Your task to perform on an android device: allow cookies in the chrome app Image 0: 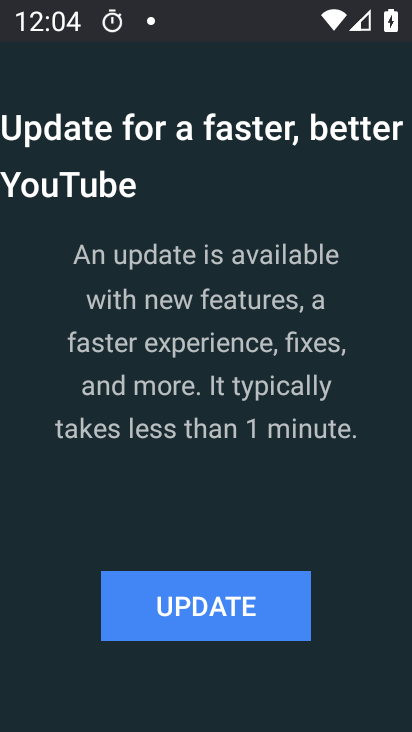
Step 0: press home button
Your task to perform on an android device: allow cookies in the chrome app Image 1: 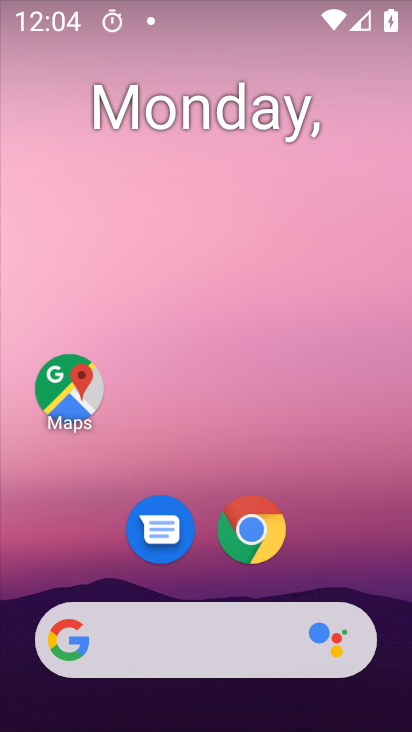
Step 1: click (258, 514)
Your task to perform on an android device: allow cookies in the chrome app Image 2: 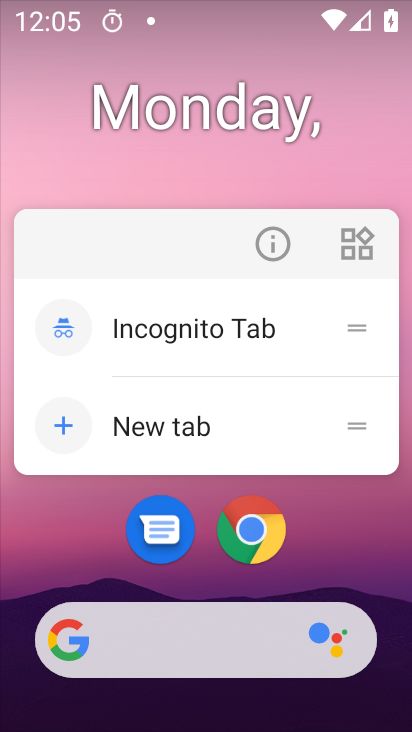
Step 2: click (243, 553)
Your task to perform on an android device: allow cookies in the chrome app Image 3: 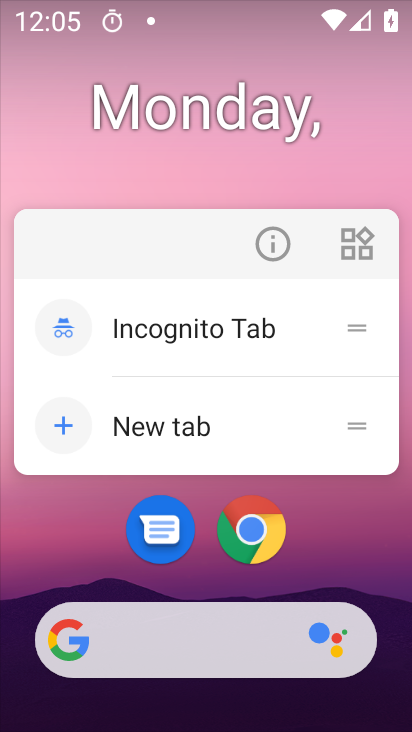
Step 3: click (249, 535)
Your task to perform on an android device: allow cookies in the chrome app Image 4: 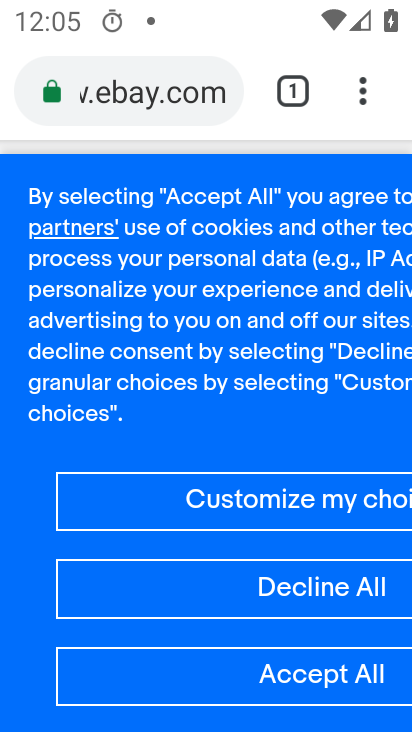
Step 4: drag from (365, 91) to (121, 544)
Your task to perform on an android device: allow cookies in the chrome app Image 5: 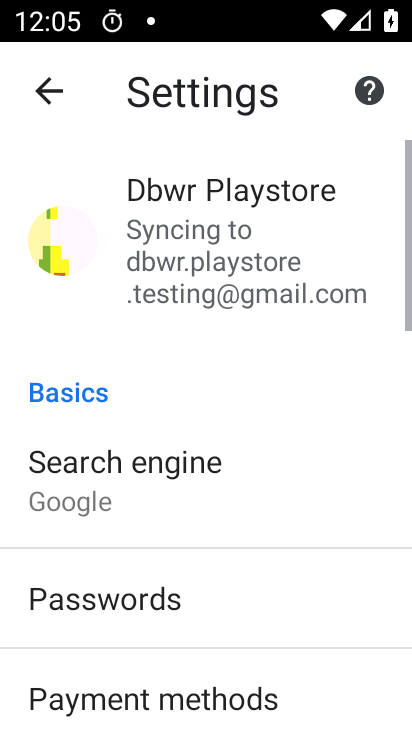
Step 5: drag from (158, 594) to (157, 131)
Your task to perform on an android device: allow cookies in the chrome app Image 6: 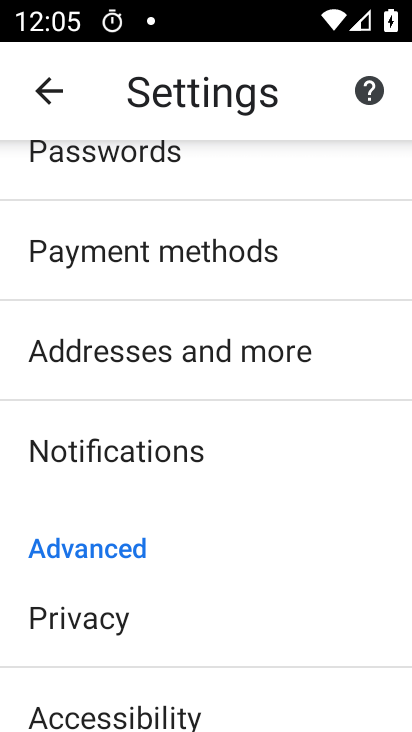
Step 6: drag from (118, 642) to (136, 197)
Your task to perform on an android device: allow cookies in the chrome app Image 7: 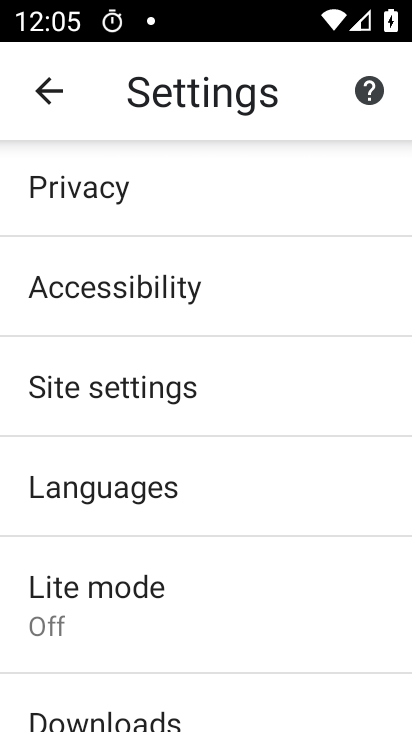
Step 7: click (99, 403)
Your task to perform on an android device: allow cookies in the chrome app Image 8: 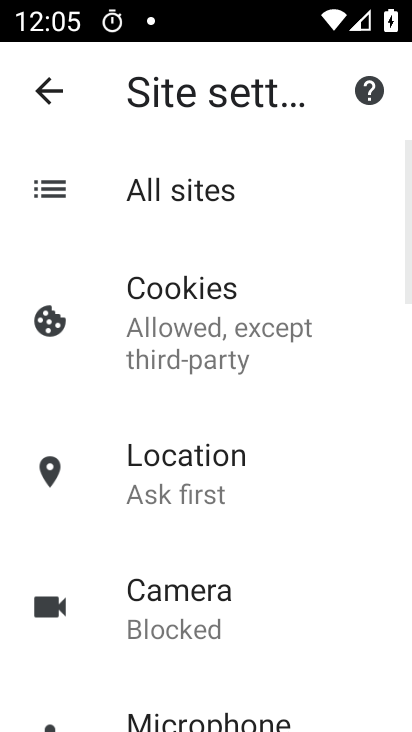
Step 8: click (185, 290)
Your task to perform on an android device: allow cookies in the chrome app Image 9: 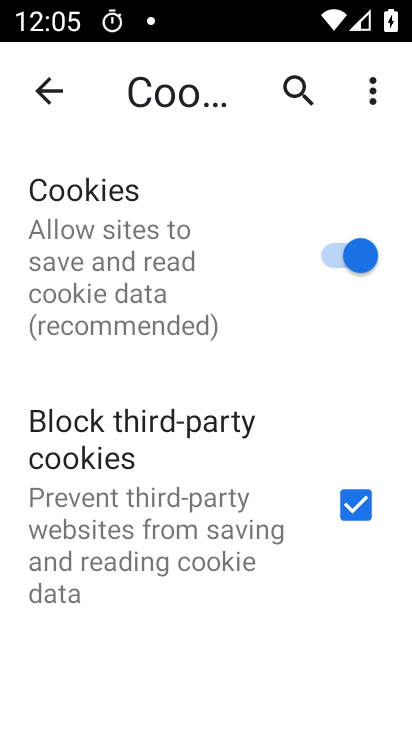
Step 9: task complete